Your task to perform on an android device: What is the recent news? Image 0: 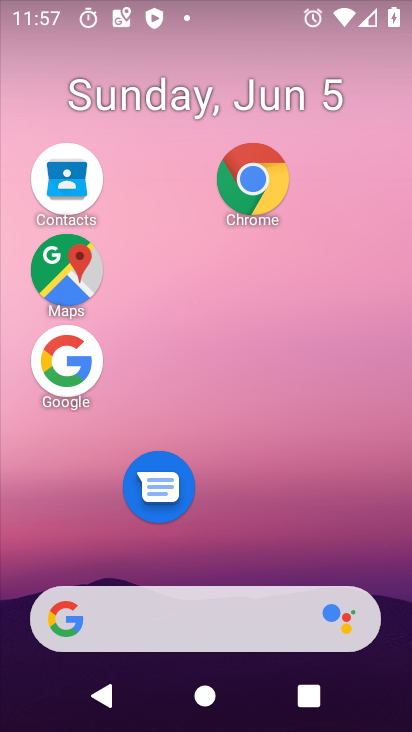
Step 0: drag from (267, 661) to (256, 87)
Your task to perform on an android device: What is the recent news? Image 1: 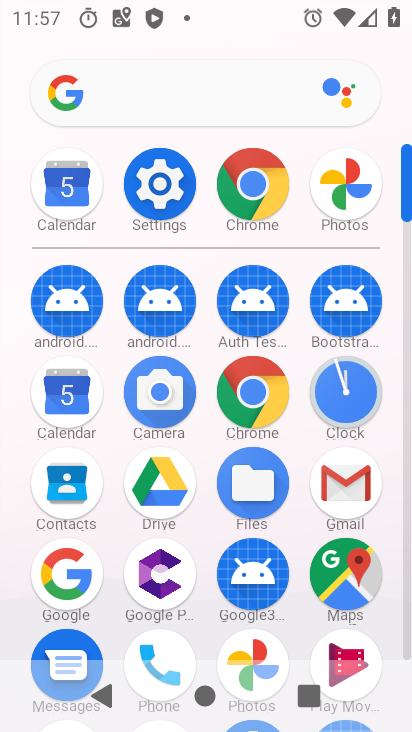
Step 1: drag from (286, 510) to (279, 96)
Your task to perform on an android device: What is the recent news? Image 2: 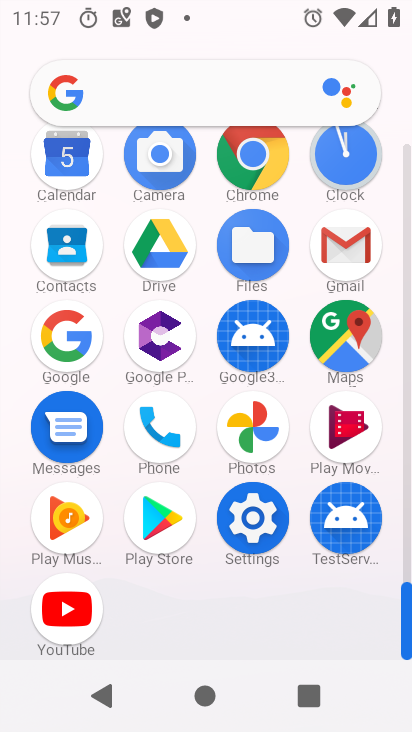
Step 2: click (54, 338)
Your task to perform on an android device: What is the recent news? Image 3: 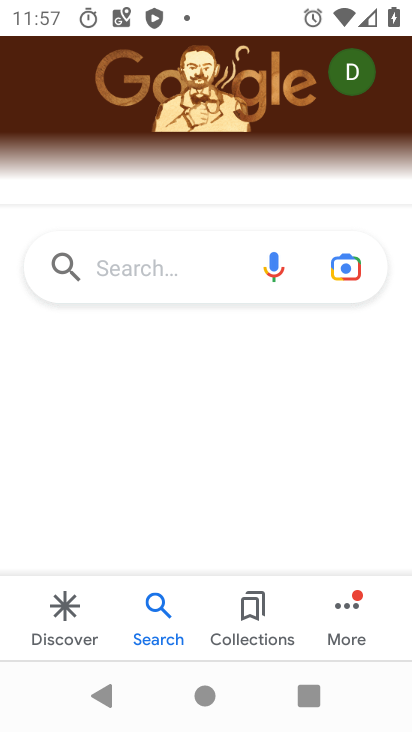
Step 3: click (151, 262)
Your task to perform on an android device: What is the recent news? Image 4: 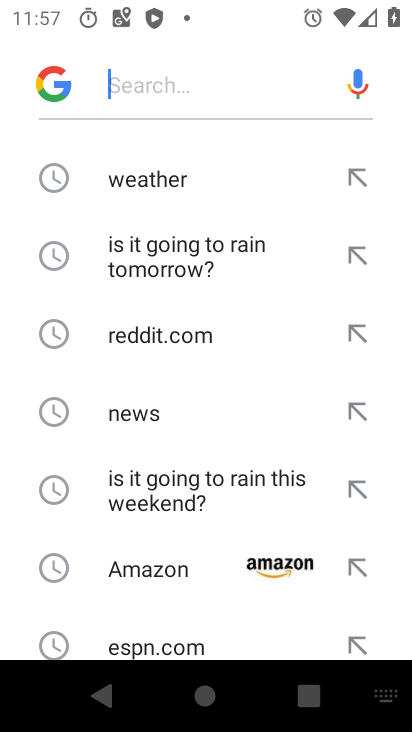
Step 4: click (179, 406)
Your task to perform on an android device: What is the recent news? Image 5: 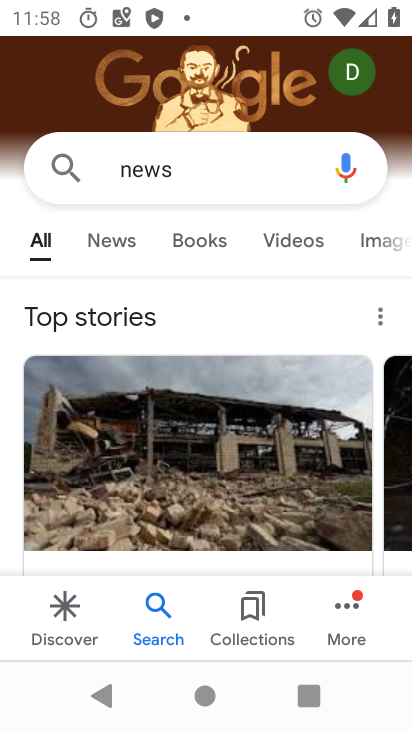
Step 5: click (120, 246)
Your task to perform on an android device: What is the recent news? Image 6: 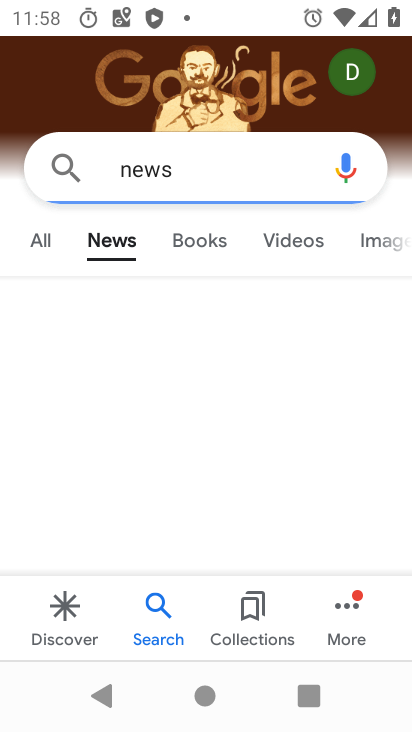
Step 6: task complete